Your task to perform on an android device: Open location settings Image 0: 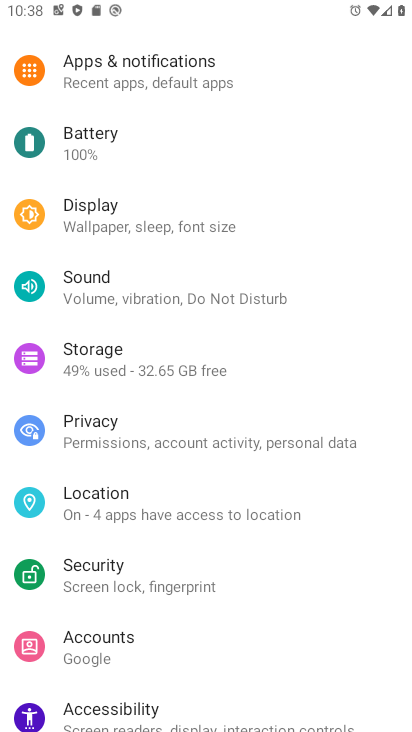
Step 0: drag from (353, 587) to (357, 424)
Your task to perform on an android device: Open location settings Image 1: 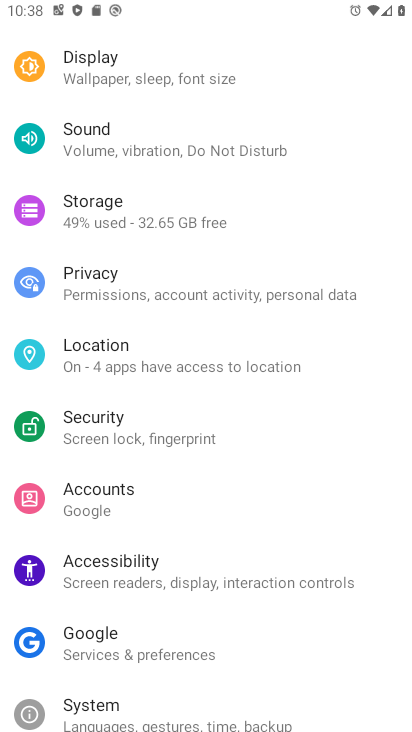
Step 1: drag from (363, 620) to (371, 454)
Your task to perform on an android device: Open location settings Image 2: 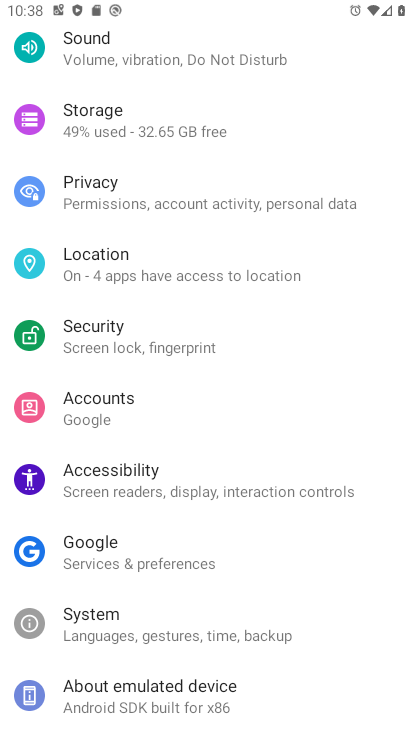
Step 2: drag from (353, 256) to (343, 394)
Your task to perform on an android device: Open location settings Image 3: 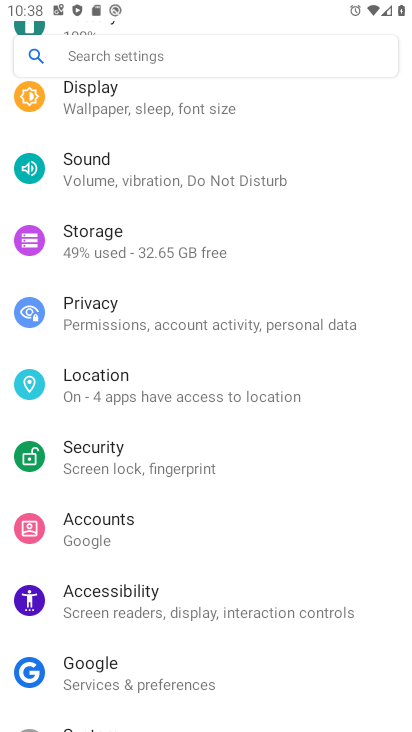
Step 3: drag from (343, 228) to (345, 386)
Your task to perform on an android device: Open location settings Image 4: 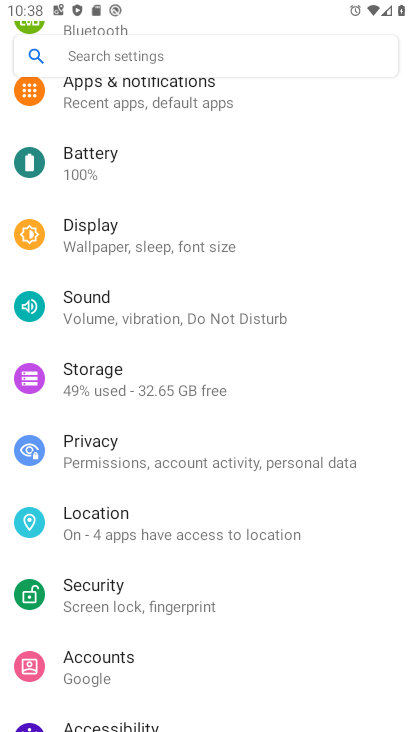
Step 4: click (315, 527)
Your task to perform on an android device: Open location settings Image 5: 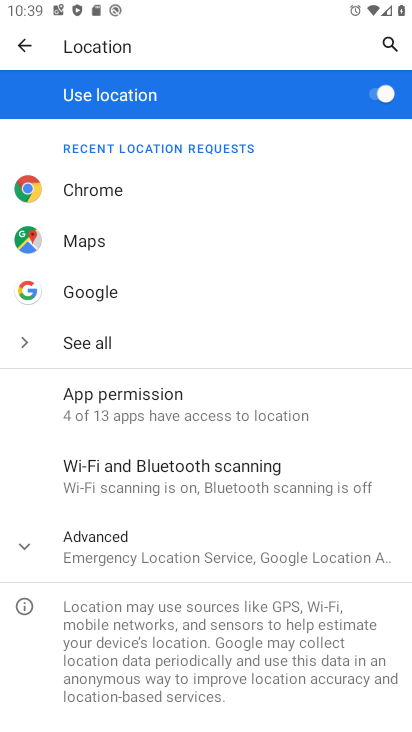
Step 5: task complete